Your task to perform on an android device: Show me popular videos on Youtube Image 0: 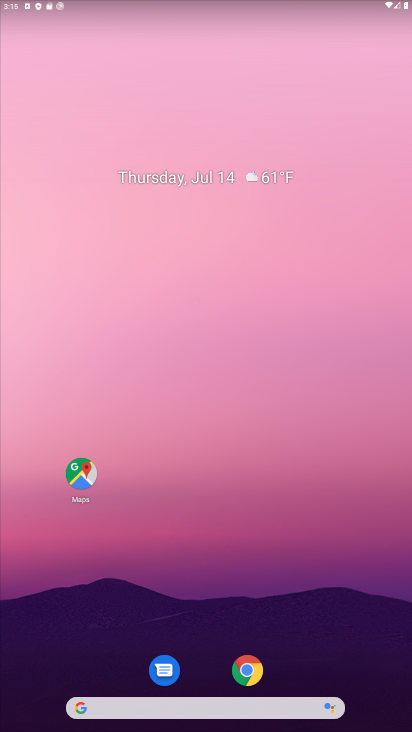
Step 0: drag from (204, 683) to (189, 229)
Your task to perform on an android device: Show me popular videos on Youtube Image 1: 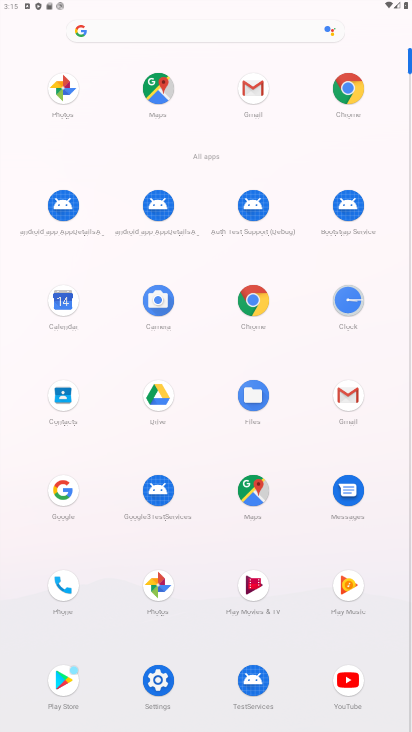
Step 1: click (330, 679)
Your task to perform on an android device: Show me popular videos on Youtube Image 2: 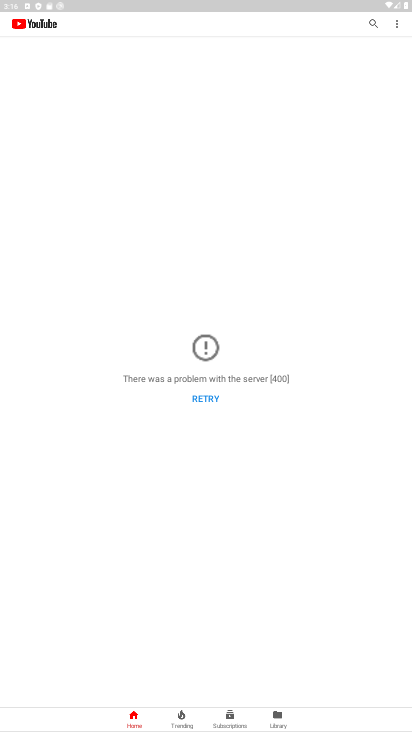
Step 2: click (185, 720)
Your task to perform on an android device: Show me popular videos on Youtube Image 3: 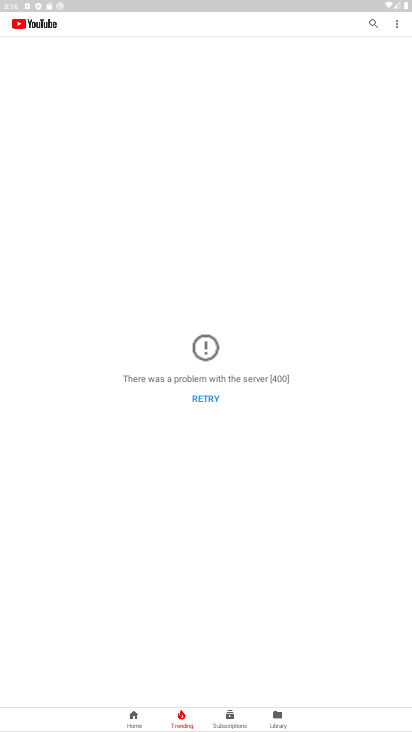
Step 3: task complete